Your task to perform on an android device: Go to notification settings Image 0: 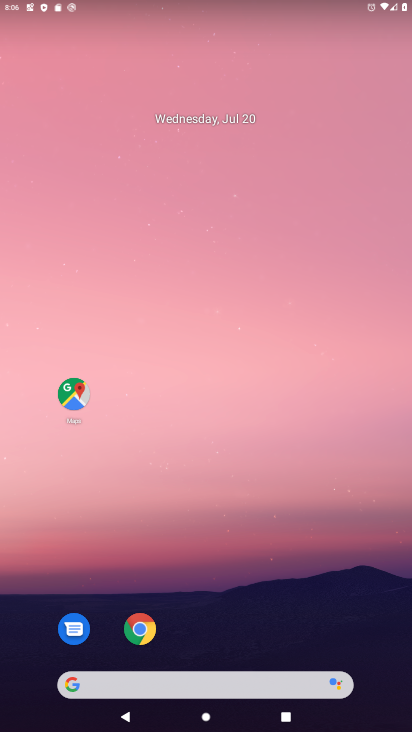
Step 0: drag from (185, 634) to (184, 187)
Your task to perform on an android device: Go to notification settings Image 1: 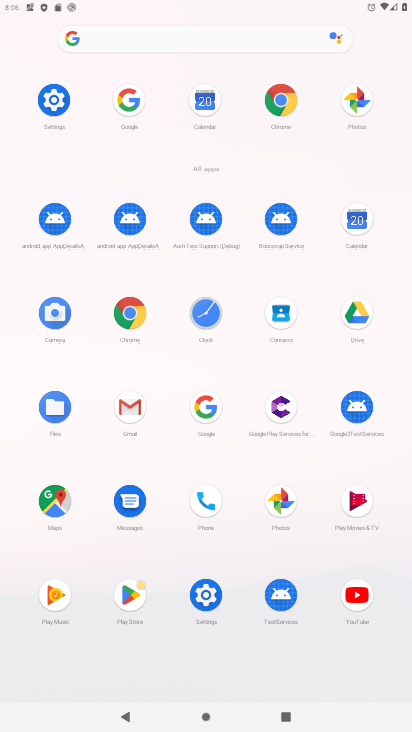
Step 1: click (53, 104)
Your task to perform on an android device: Go to notification settings Image 2: 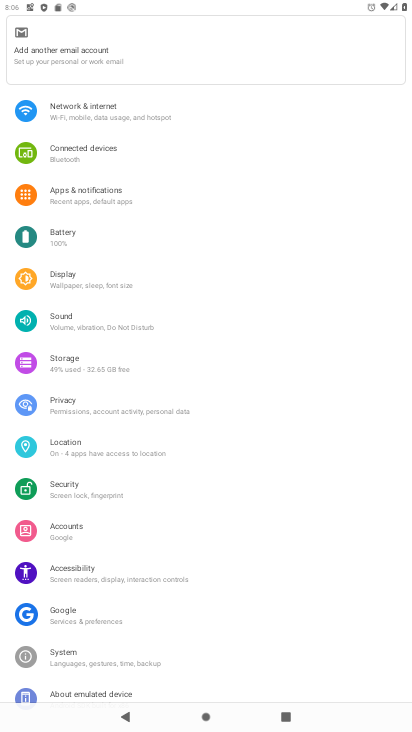
Step 2: click (80, 199)
Your task to perform on an android device: Go to notification settings Image 3: 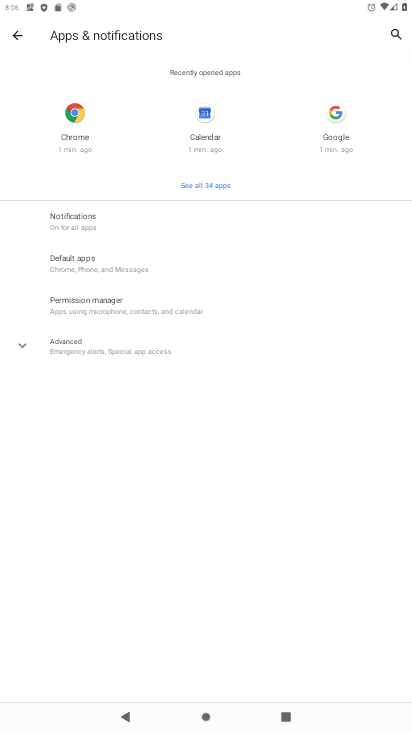
Step 3: click (82, 225)
Your task to perform on an android device: Go to notification settings Image 4: 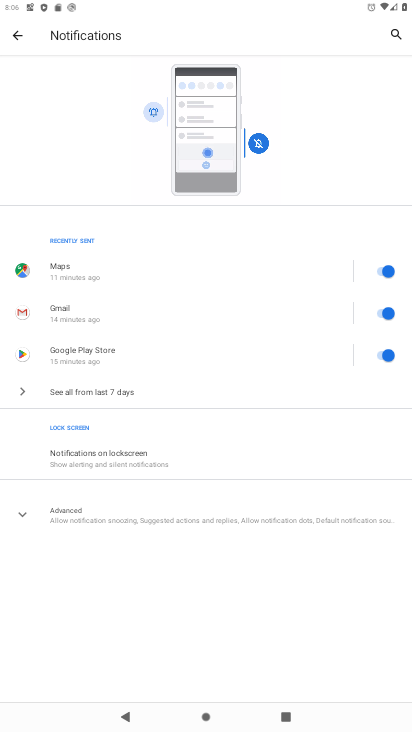
Step 4: task complete